Your task to perform on an android device: install app "Messages" Image 0: 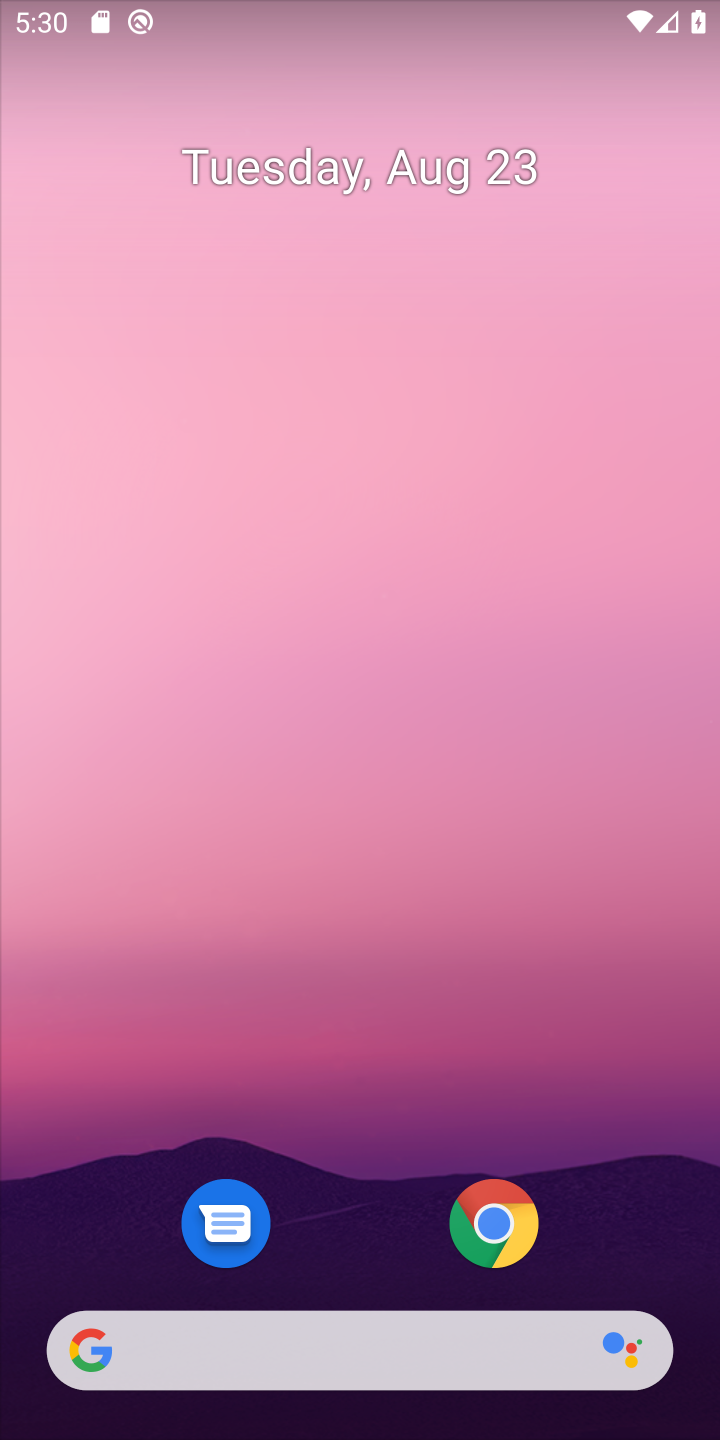
Step 0: drag from (410, 1331) to (409, 286)
Your task to perform on an android device: install app "Messages" Image 1: 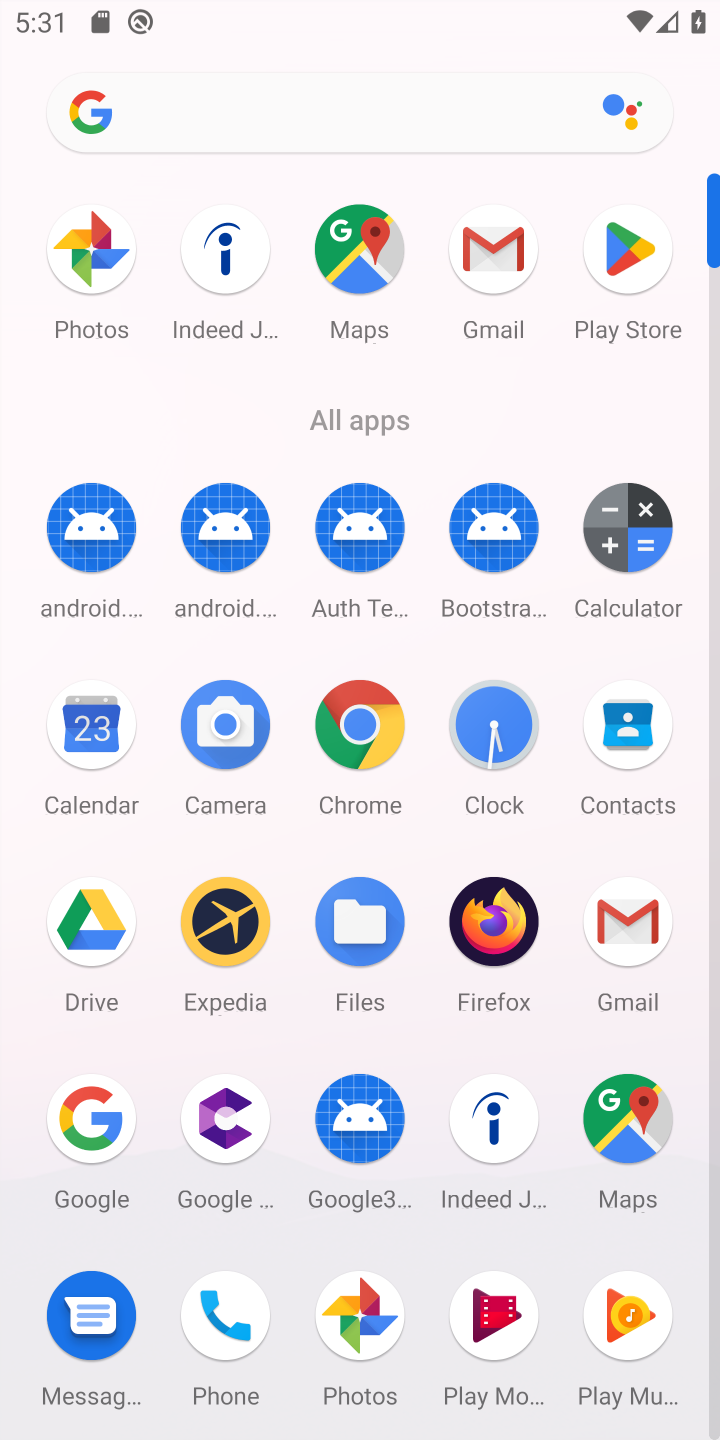
Step 1: click (616, 262)
Your task to perform on an android device: install app "Messages" Image 2: 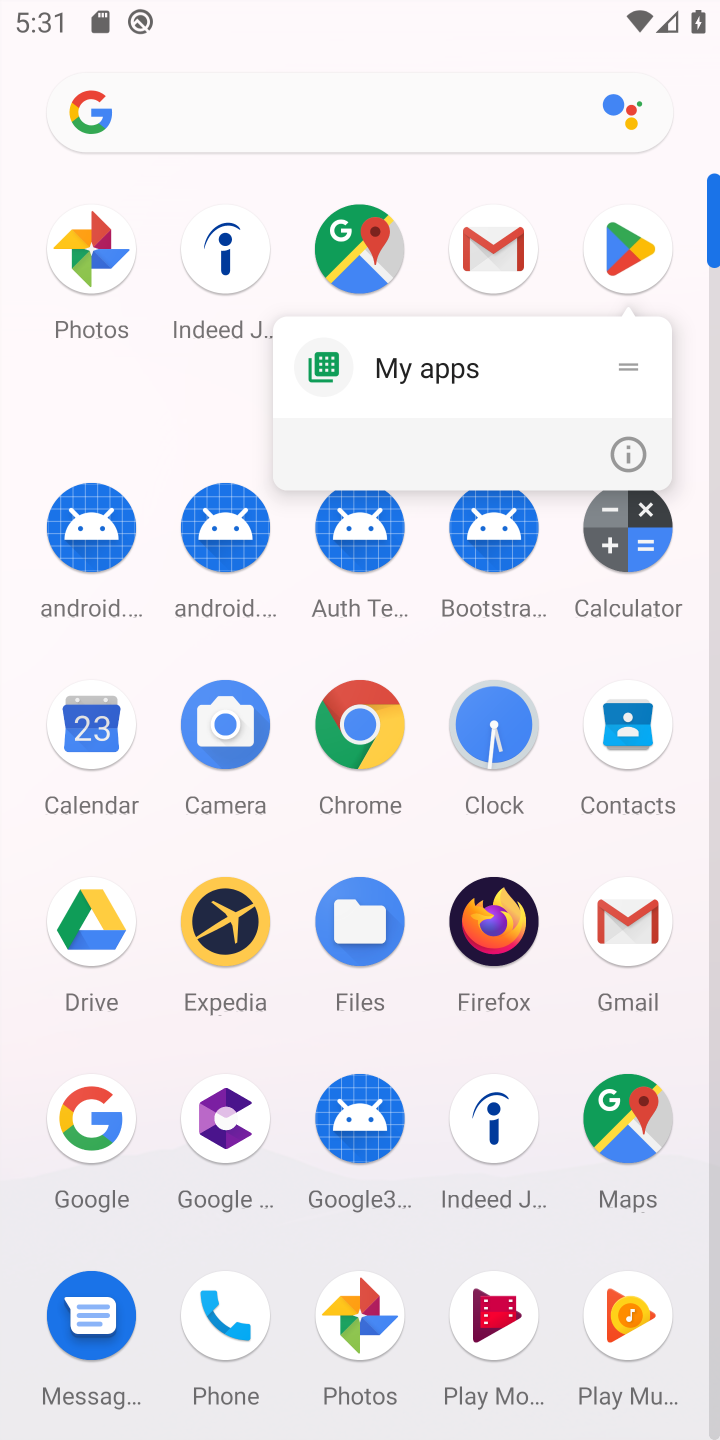
Step 2: click (618, 251)
Your task to perform on an android device: install app "Messages" Image 3: 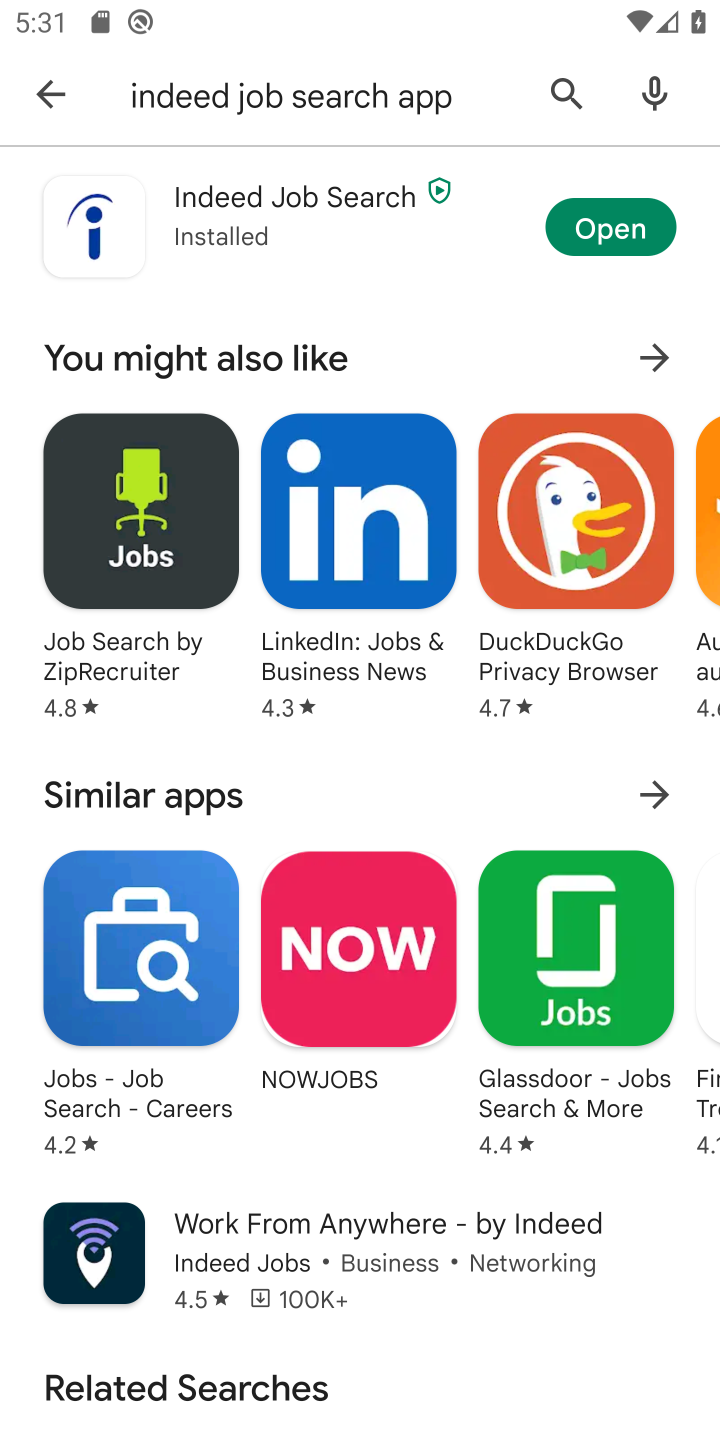
Step 3: click (564, 87)
Your task to perform on an android device: install app "Messages" Image 4: 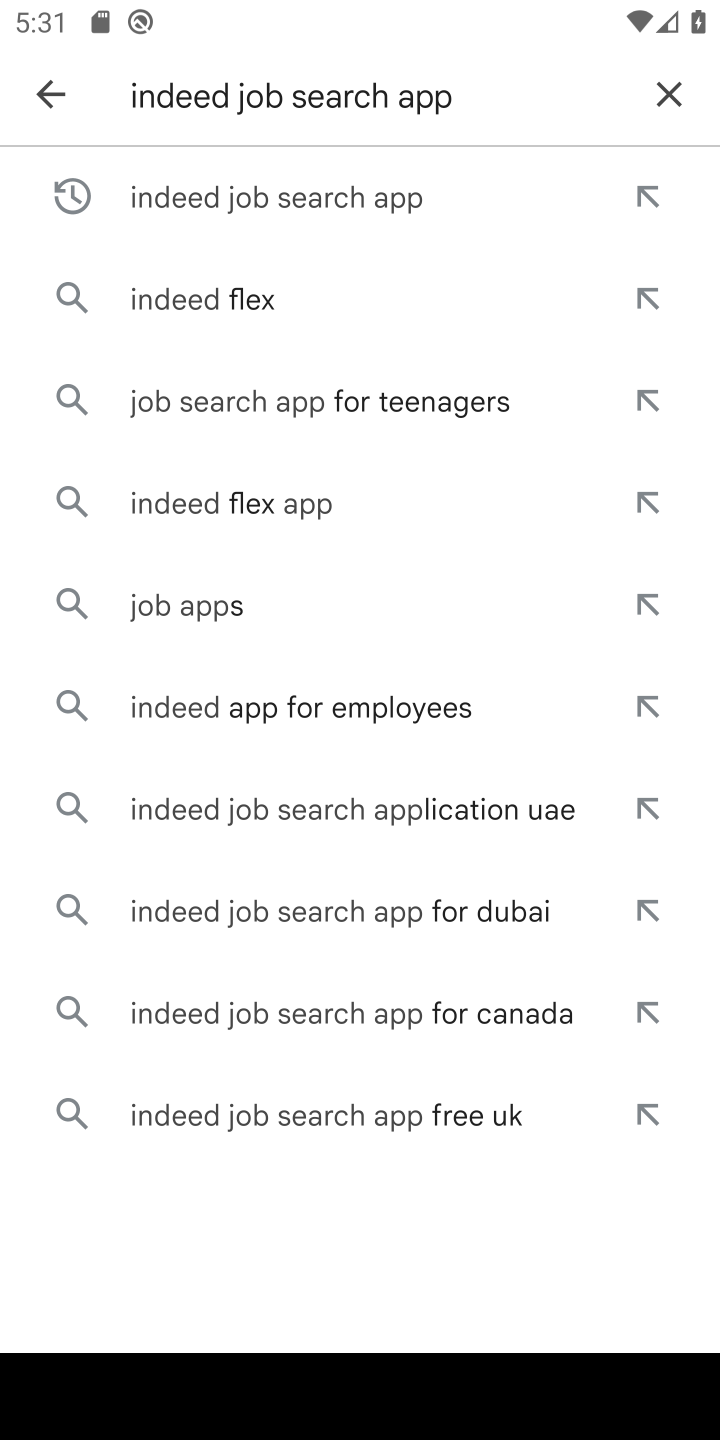
Step 4: click (671, 89)
Your task to perform on an android device: install app "Messages" Image 5: 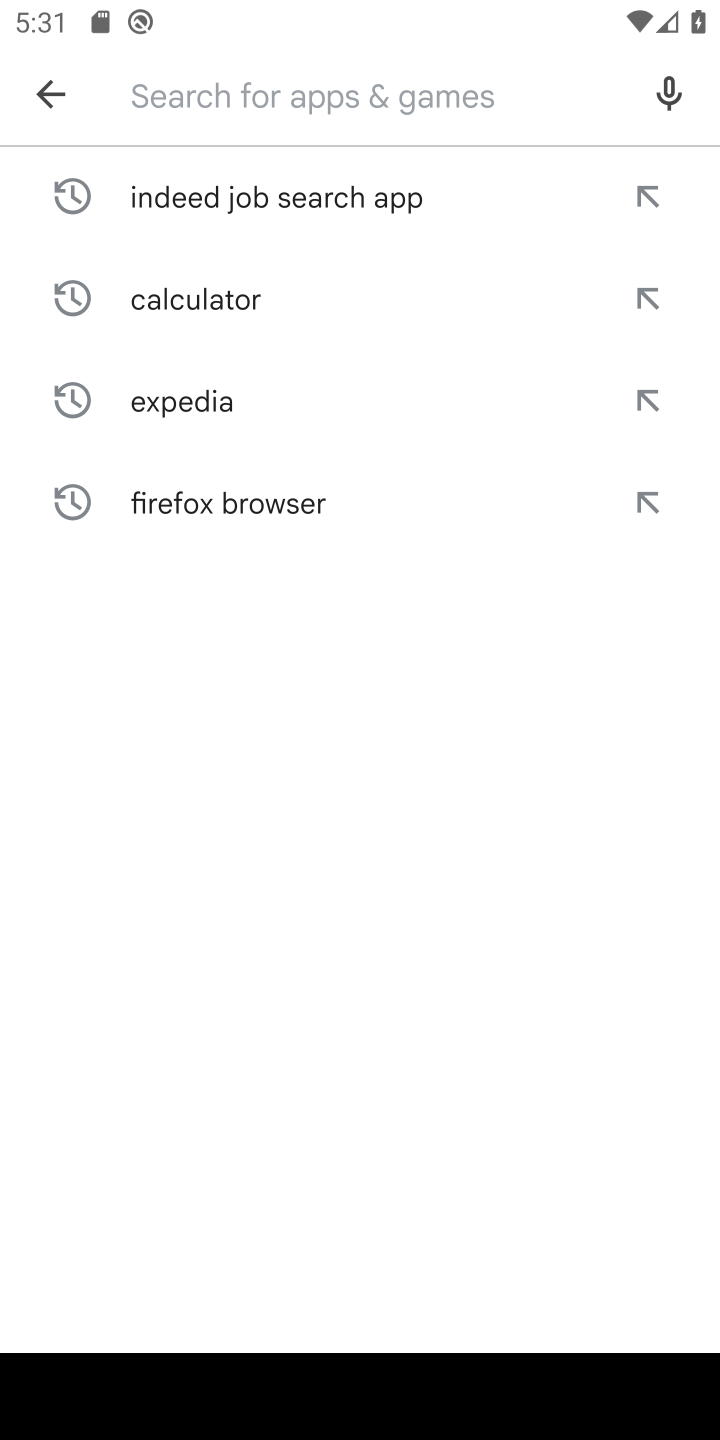
Step 5: type "messages"
Your task to perform on an android device: install app "Messages" Image 6: 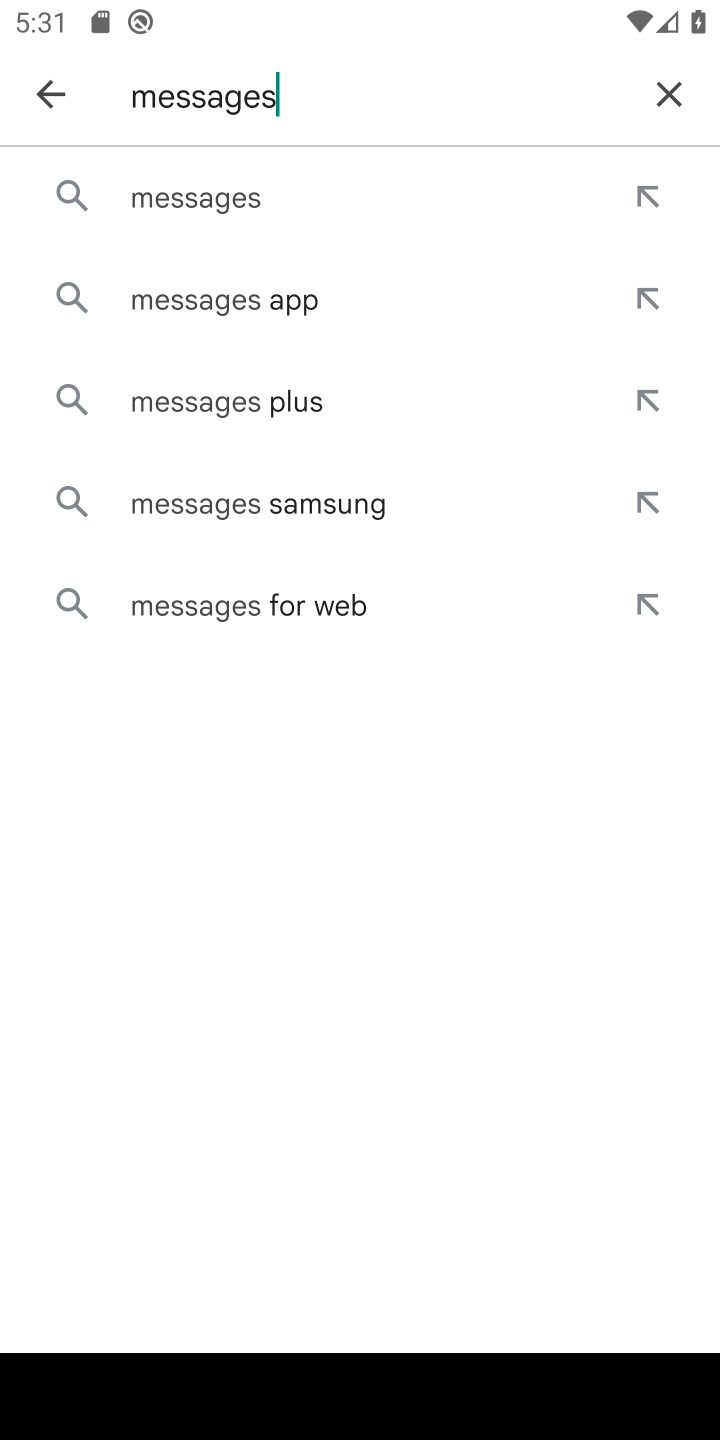
Step 6: click (245, 200)
Your task to perform on an android device: install app "Messages" Image 7: 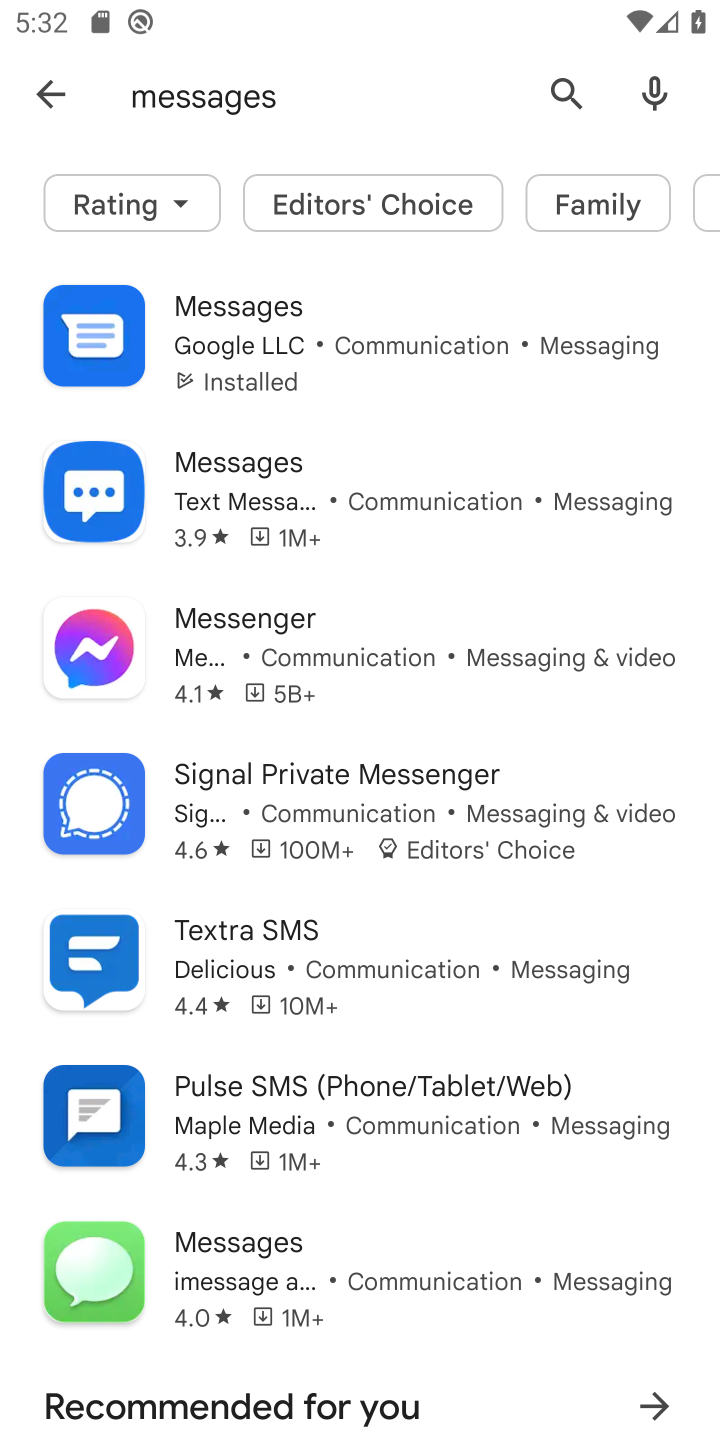
Step 7: click (283, 357)
Your task to perform on an android device: install app "Messages" Image 8: 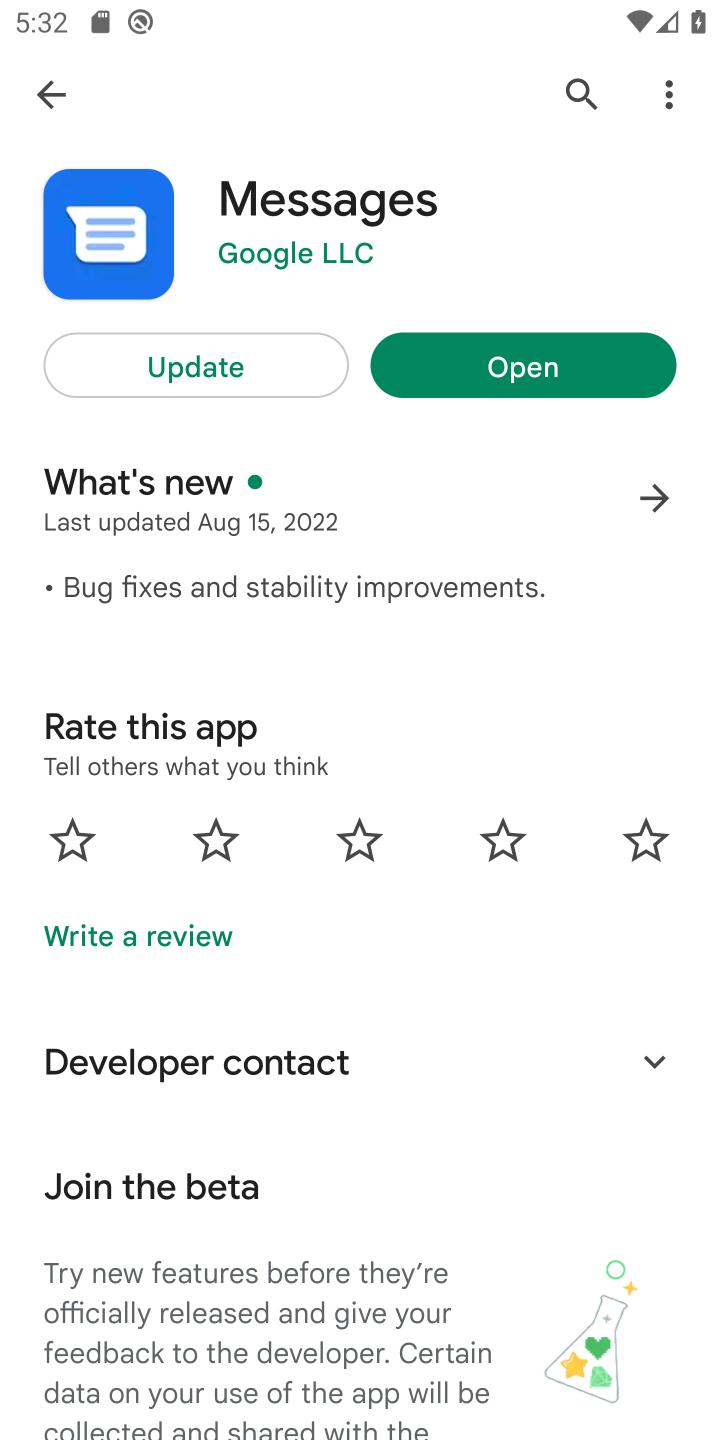
Step 8: task complete